Your task to perform on an android device: Open the web browser Image 0: 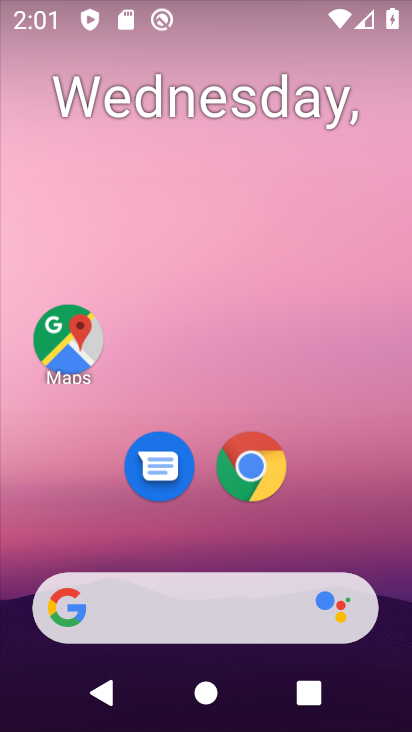
Step 0: drag from (327, 478) to (190, 9)
Your task to perform on an android device: Open the web browser Image 1: 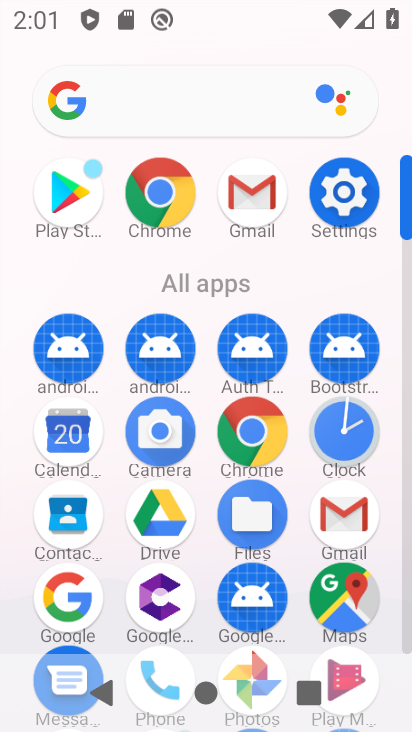
Step 1: drag from (17, 513) to (22, 336)
Your task to perform on an android device: Open the web browser Image 2: 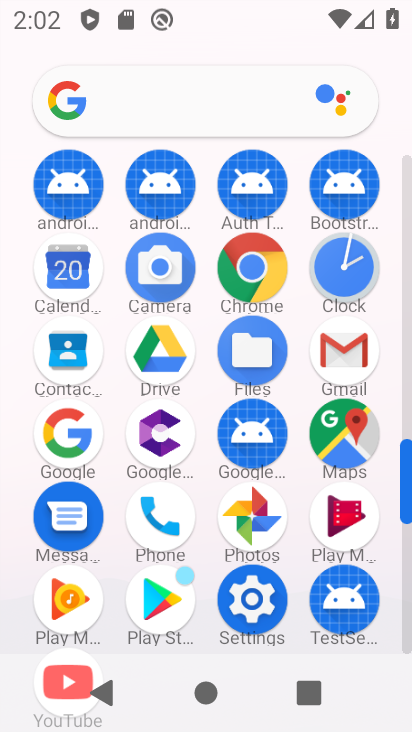
Step 2: click (255, 262)
Your task to perform on an android device: Open the web browser Image 3: 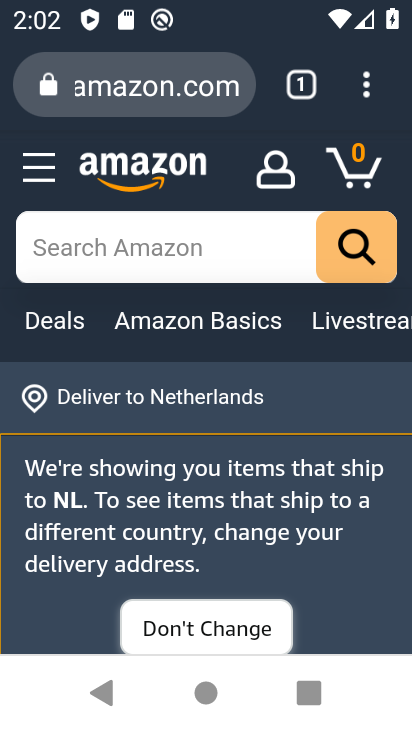
Step 3: task complete